Your task to perform on an android device: Find coffee shops on Maps Image 0: 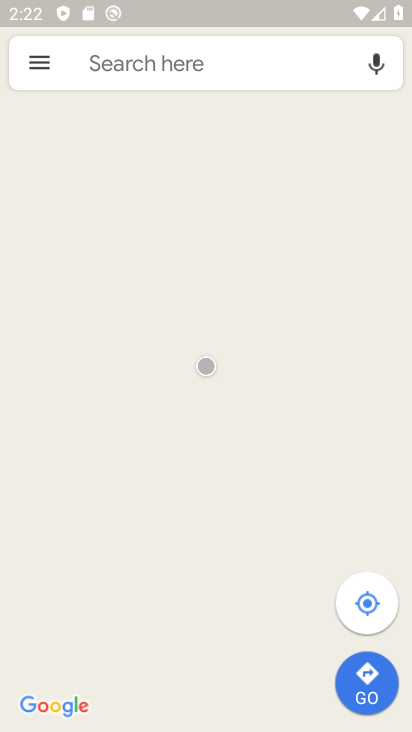
Step 0: press home button
Your task to perform on an android device: Find coffee shops on Maps Image 1: 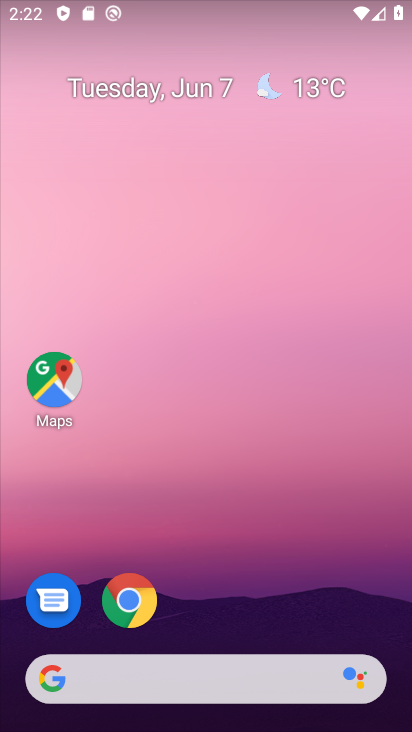
Step 1: click (59, 374)
Your task to perform on an android device: Find coffee shops on Maps Image 2: 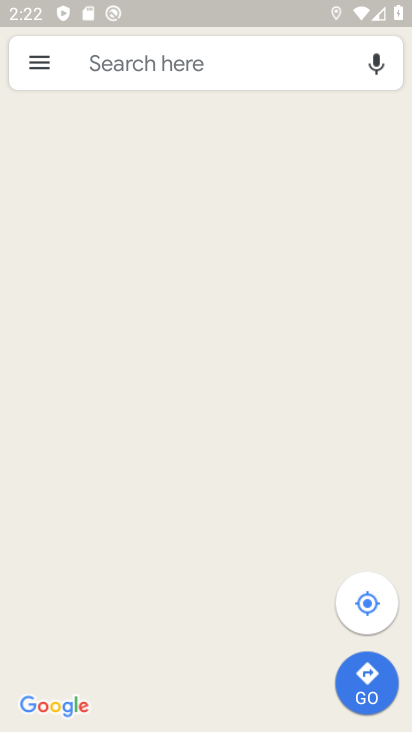
Step 2: click (181, 60)
Your task to perform on an android device: Find coffee shops on Maps Image 3: 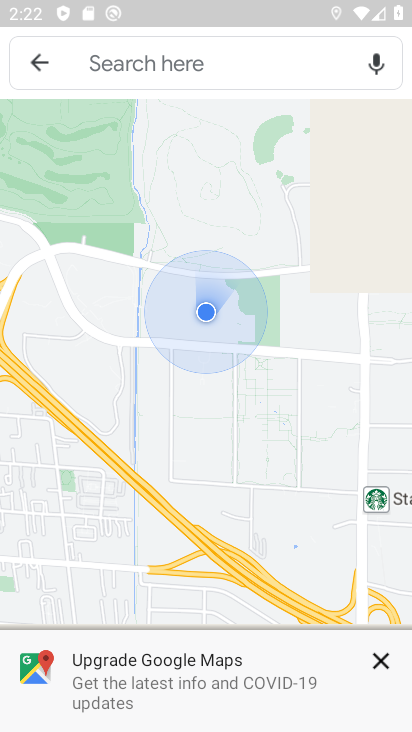
Step 3: click (181, 61)
Your task to perform on an android device: Find coffee shops on Maps Image 4: 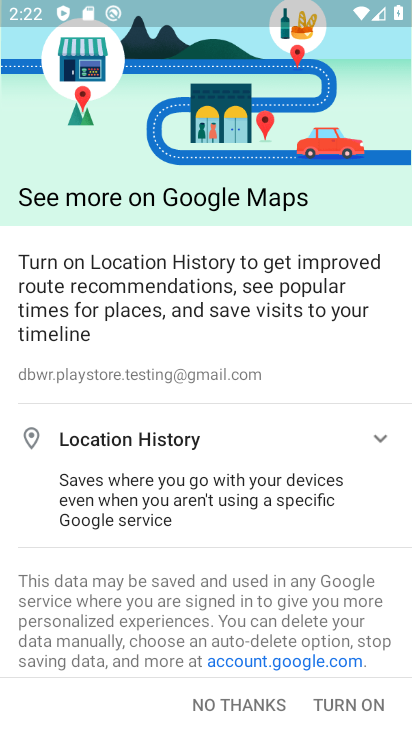
Step 4: click (254, 697)
Your task to perform on an android device: Find coffee shops on Maps Image 5: 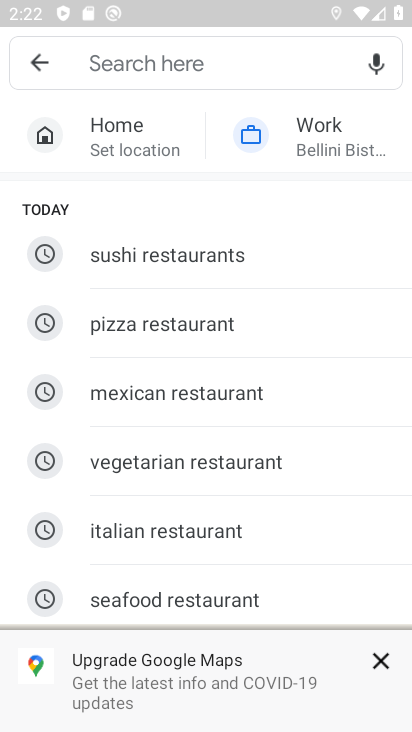
Step 5: click (196, 62)
Your task to perform on an android device: Find coffee shops on Maps Image 6: 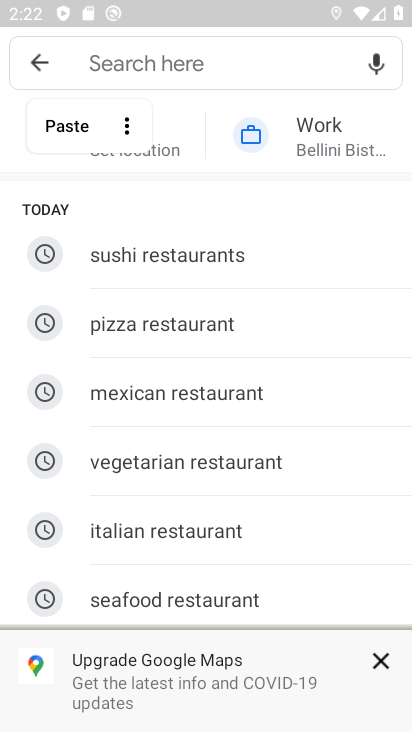
Step 6: type "coffee"
Your task to perform on an android device: Find coffee shops on Maps Image 7: 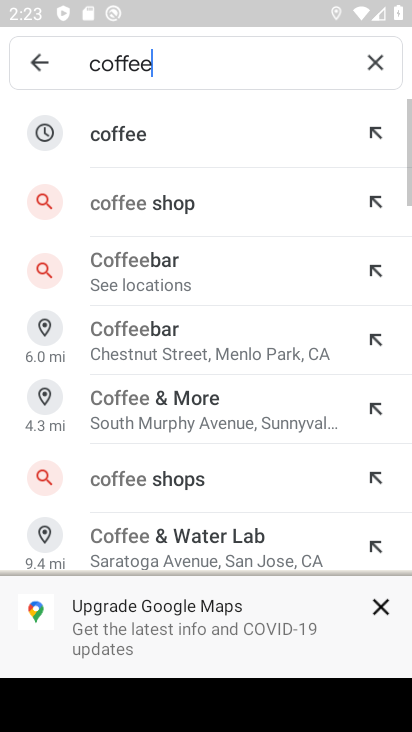
Step 7: click (144, 142)
Your task to perform on an android device: Find coffee shops on Maps Image 8: 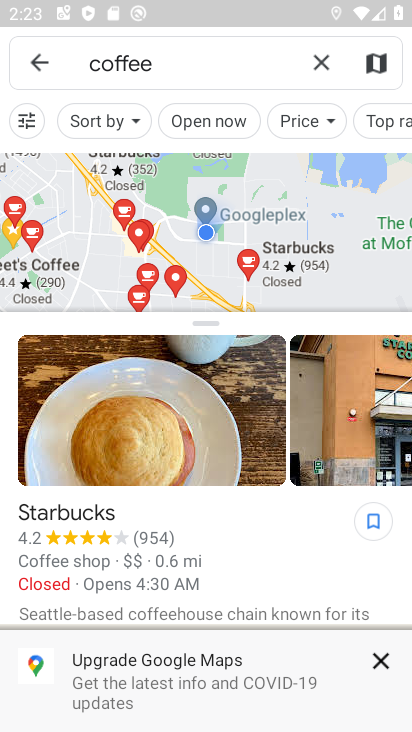
Step 8: task complete